Your task to perform on an android device: change the clock display to show seconds Image 0: 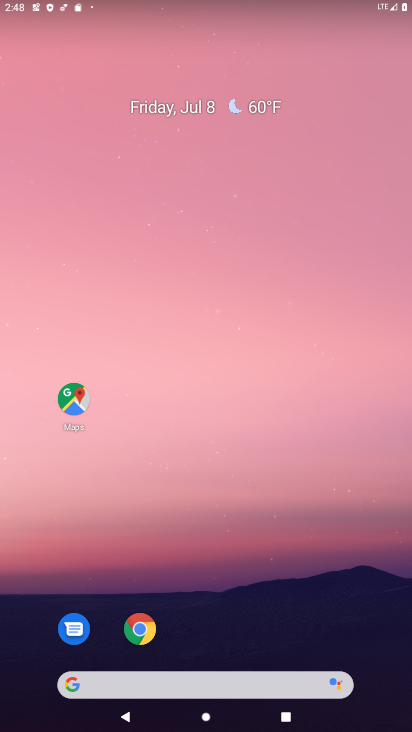
Step 0: drag from (205, 640) to (216, 173)
Your task to perform on an android device: change the clock display to show seconds Image 1: 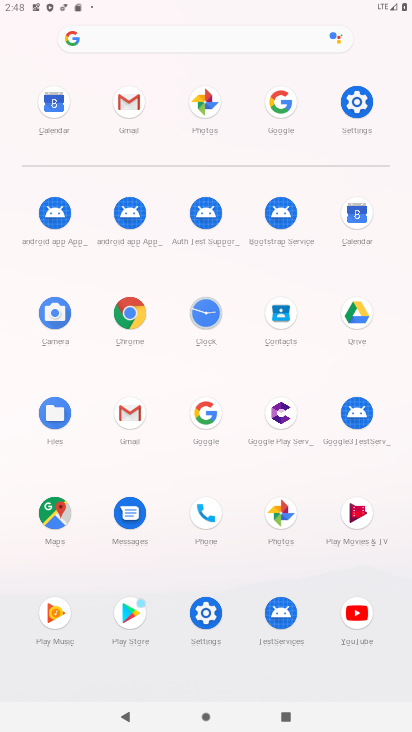
Step 1: click (216, 315)
Your task to perform on an android device: change the clock display to show seconds Image 2: 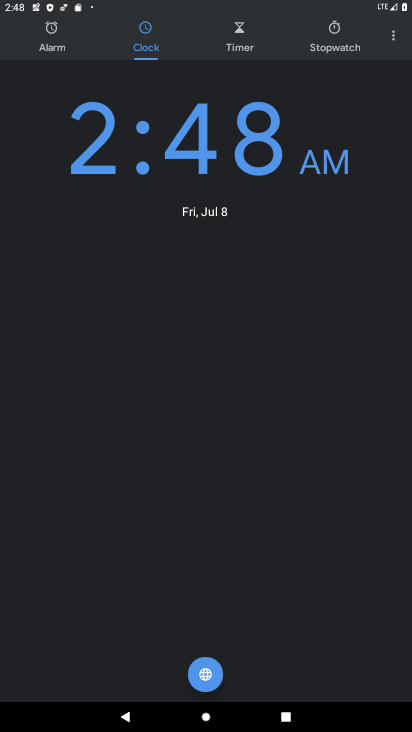
Step 2: click (389, 39)
Your task to perform on an android device: change the clock display to show seconds Image 3: 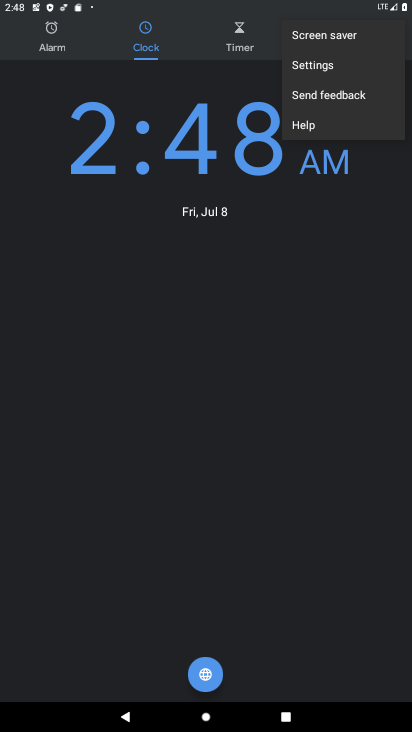
Step 3: click (345, 73)
Your task to perform on an android device: change the clock display to show seconds Image 4: 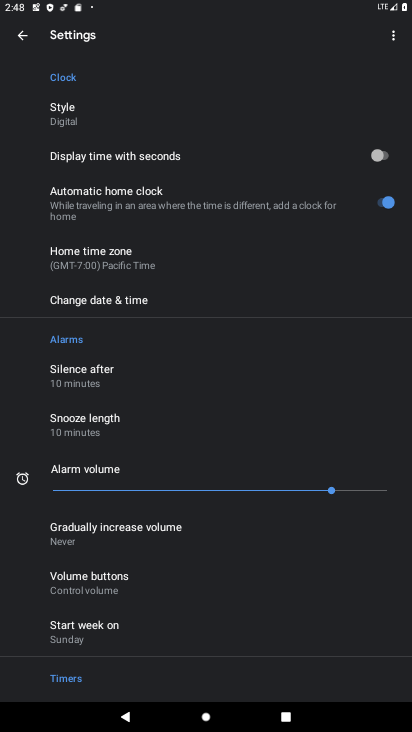
Step 4: click (392, 157)
Your task to perform on an android device: change the clock display to show seconds Image 5: 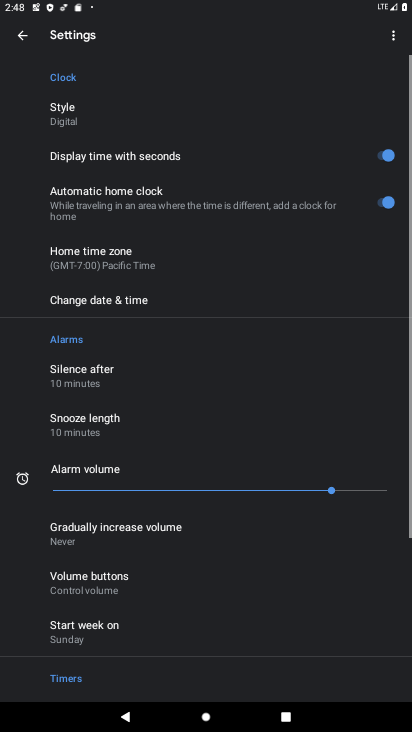
Step 5: task complete